Your task to perform on an android device: clear all cookies in the chrome app Image 0: 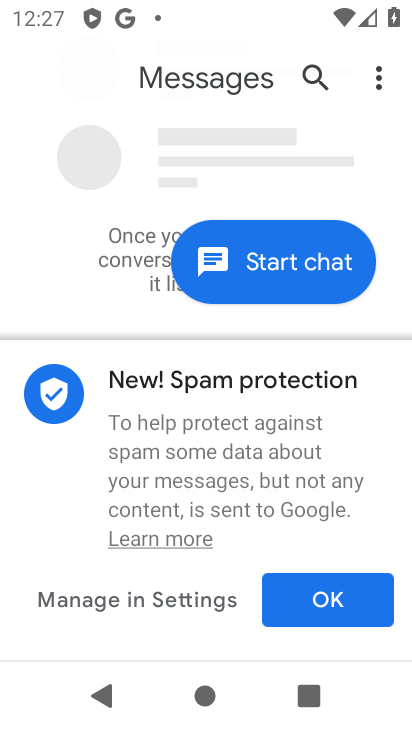
Step 0: press back button
Your task to perform on an android device: clear all cookies in the chrome app Image 1: 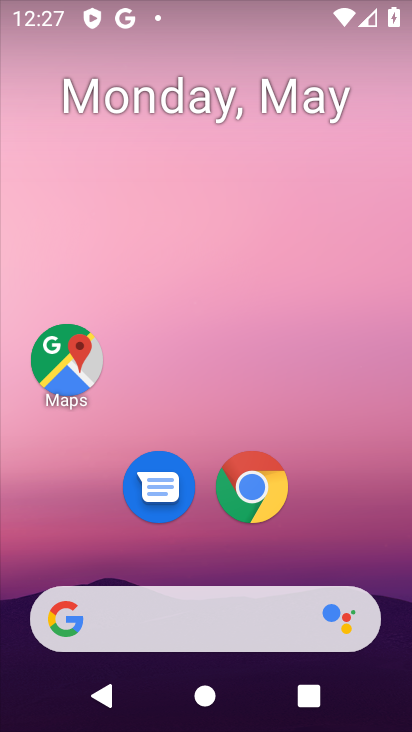
Step 1: click (253, 488)
Your task to perform on an android device: clear all cookies in the chrome app Image 2: 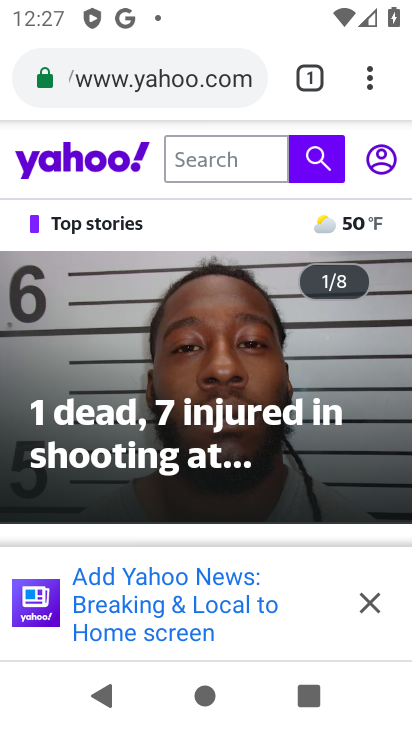
Step 2: click (372, 76)
Your task to perform on an android device: clear all cookies in the chrome app Image 3: 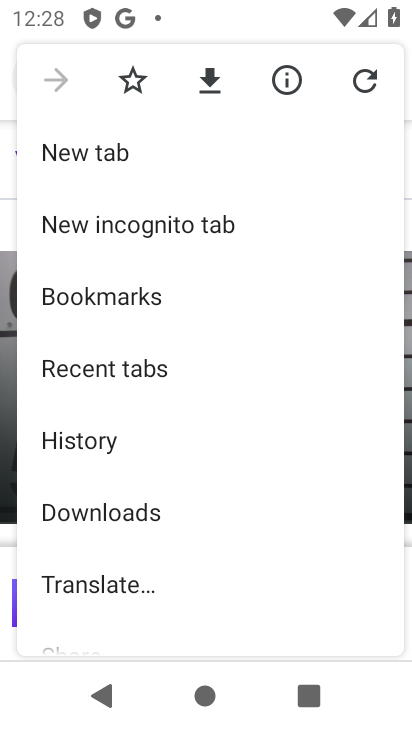
Step 3: drag from (160, 548) to (150, 379)
Your task to perform on an android device: clear all cookies in the chrome app Image 4: 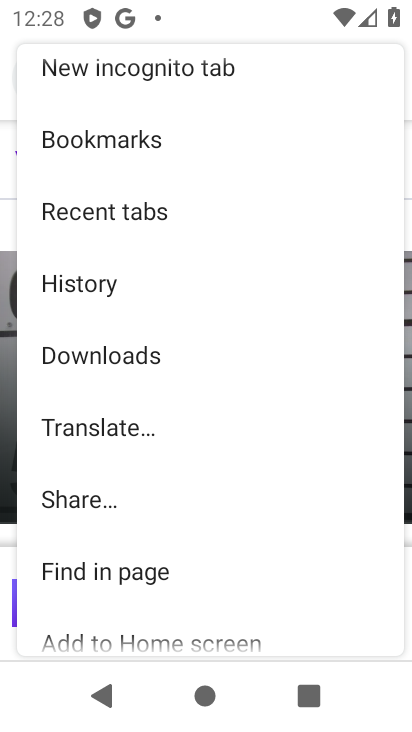
Step 4: drag from (167, 534) to (136, 386)
Your task to perform on an android device: clear all cookies in the chrome app Image 5: 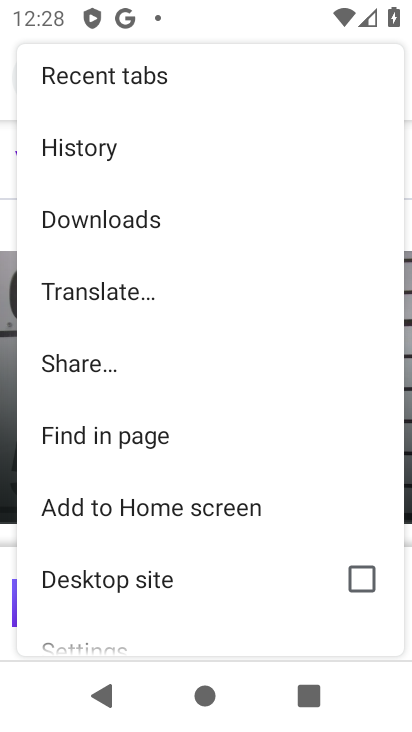
Step 5: drag from (151, 478) to (148, 287)
Your task to perform on an android device: clear all cookies in the chrome app Image 6: 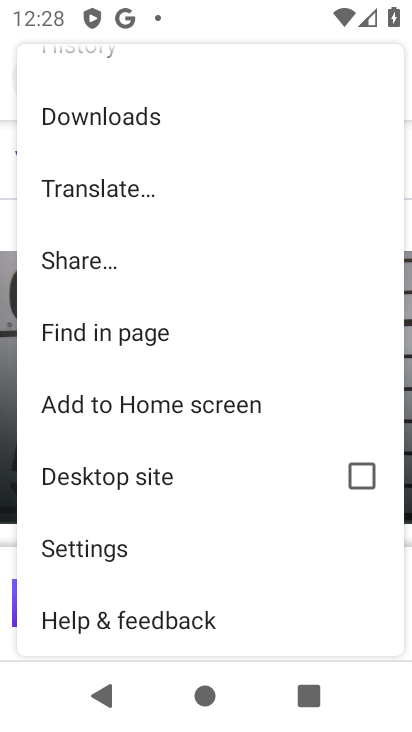
Step 6: click (95, 543)
Your task to perform on an android device: clear all cookies in the chrome app Image 7: 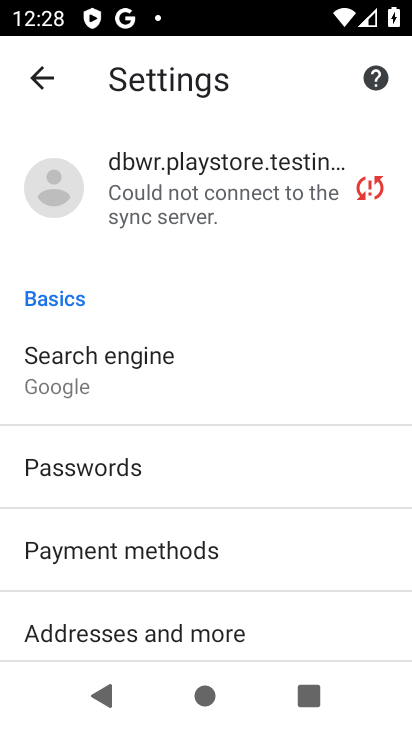
Step 7: drag from (186, 486) to (195, 356)
Your task to perform on an android device: clear all cookies in the chrome app Image 8: 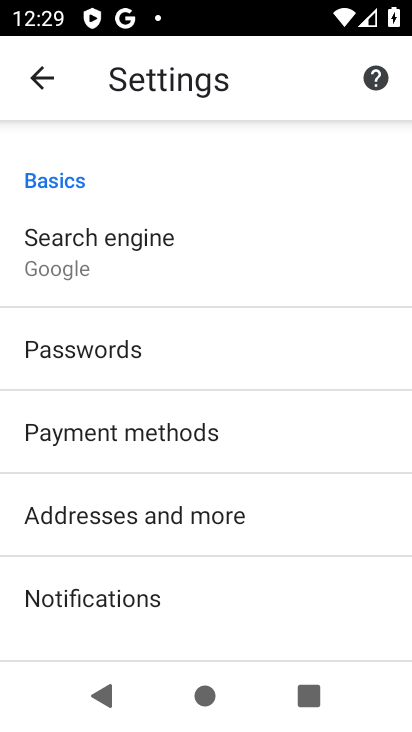
Step 8: drag from (166, 543) to (183, 427)
Your task to perform on an android device: clear all cookies in the chrome app Image 9: 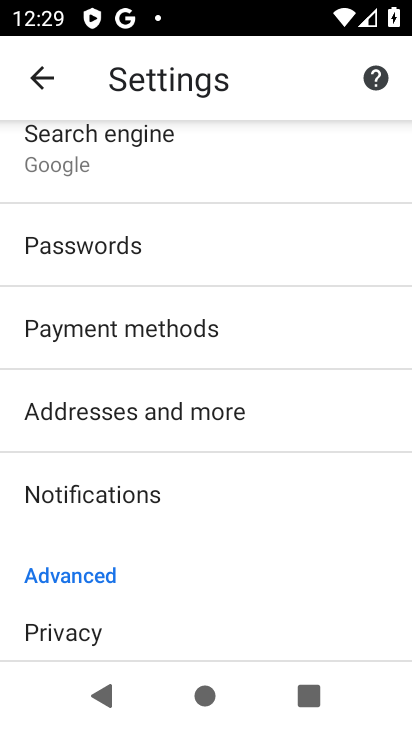
Step 9: drag from (132, 556) to (203, 448)
Your task to perform on an android device: clear all cookies in the chrome app Image 10: 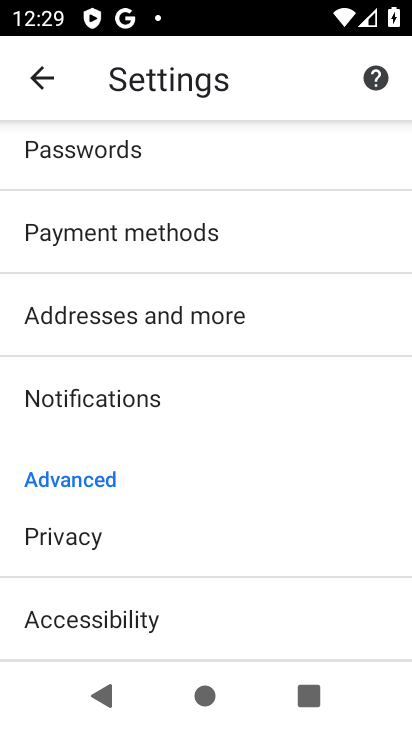
Step 10: click (97, 546)
Your task to perform on an android device: clear all cookies in the chrome app Image 11: 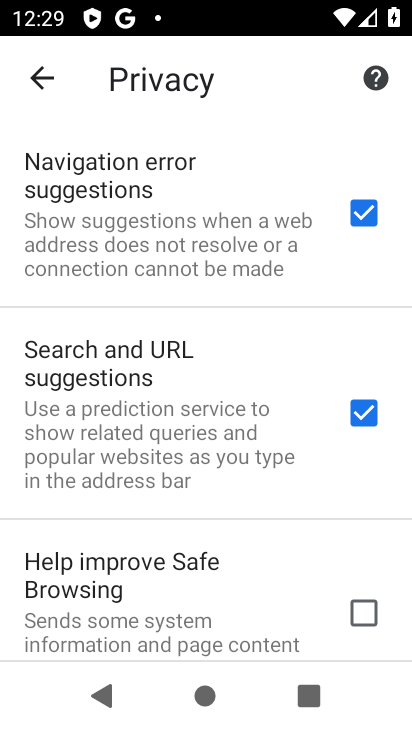
Step 11: drag from (198, 529) to (265, 385)
Your task to perform on an android device: clear all cookies in the chrome app Image 12: 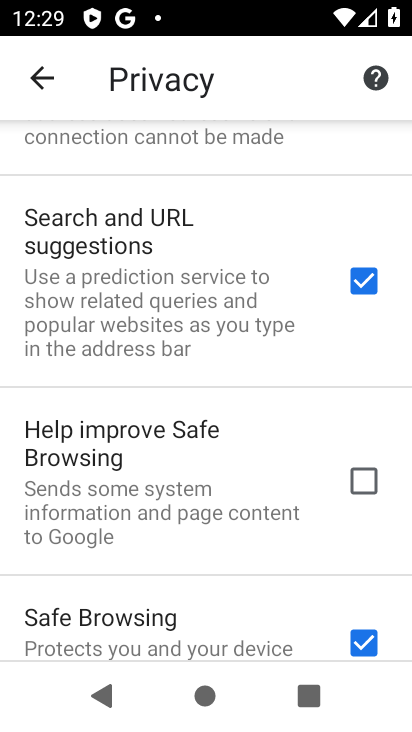
Step 12: drag from (186, 550) to (292, 397)
Your task to perform on an android device: clear all cookies in the chrome app Image 13: 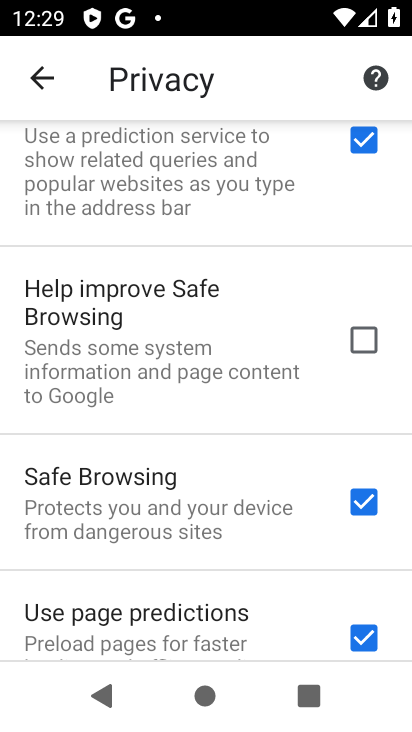
Step 13: drag from (188, 559) to (282, 455)
Your task to perform on an android device: clear all cookies in the chrome app Image 14: 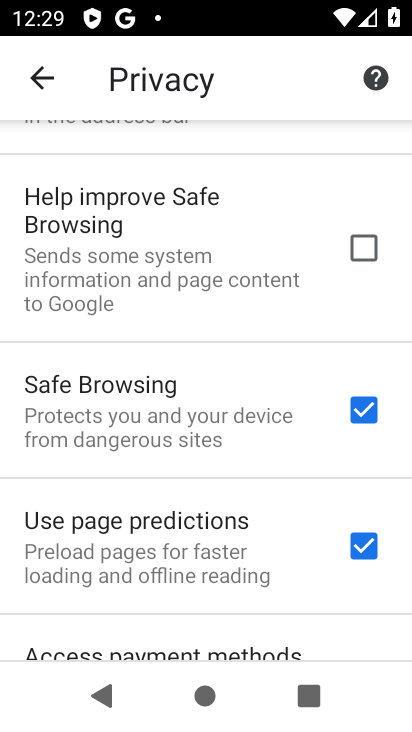
Step 14: drag from (167, 597) to (251, 479)
Your task to perform on an android device: clear all cookies in the chrome app Image 15: 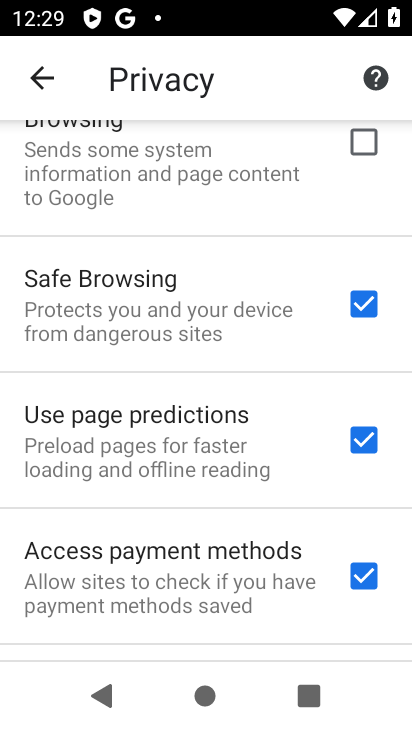
Step 15: drag from (153, 592) to (234, 451)
Your task to perform on an android device: clear all cookies in the chrome app Image 16: 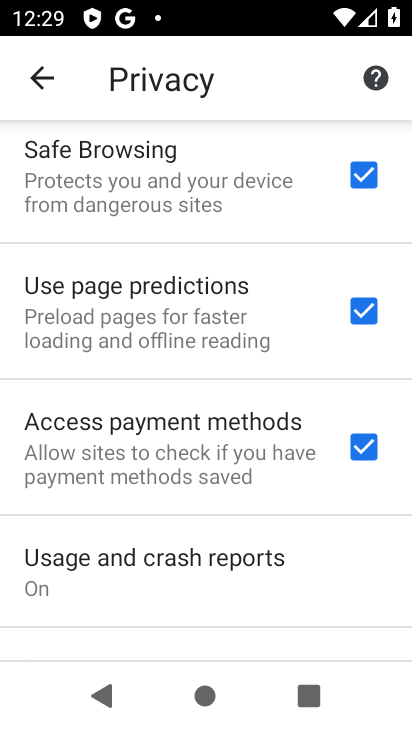
Step 16: drag from (150, 593) to (201, 444)
Your task to perform on an android device: clear all cookies in the chrome app Image 17: 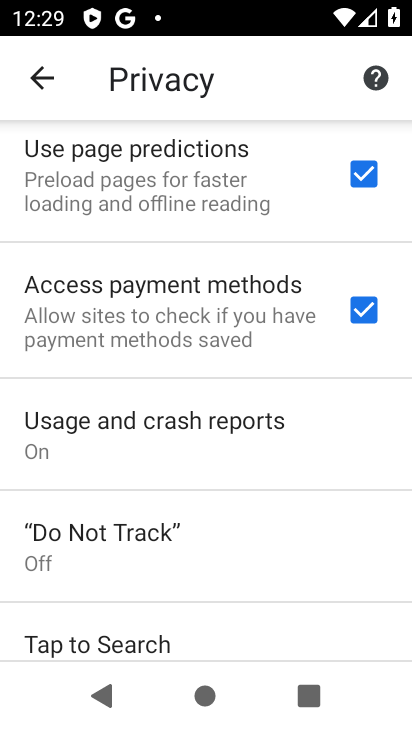
Step 17: drag from (106, 566) to (190, 422)
Your task to perform on an android device: clear all cookies in the chrome app Image 18: 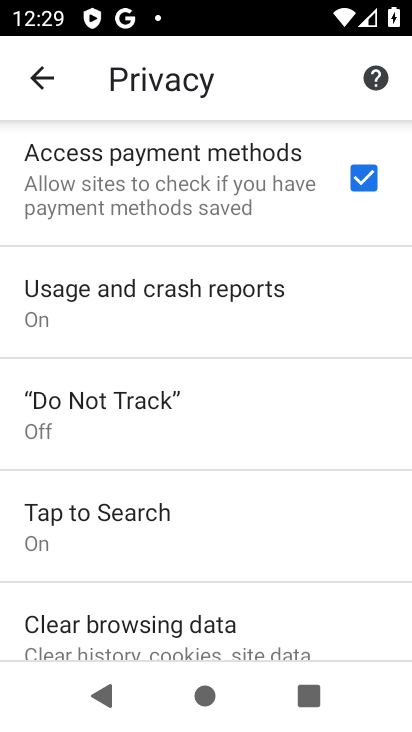
Step 18: drag from (90, 556) to (138, 439)
Your task to perform on an android device: clear all cookies in the chrome app Image 19: 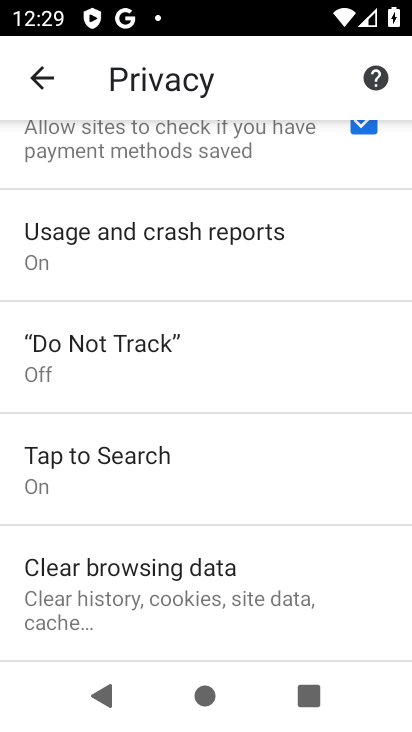
Step 19: click (98, 562)
Your task to perform on an android device: clear all cookies in the chrome app Image 20: 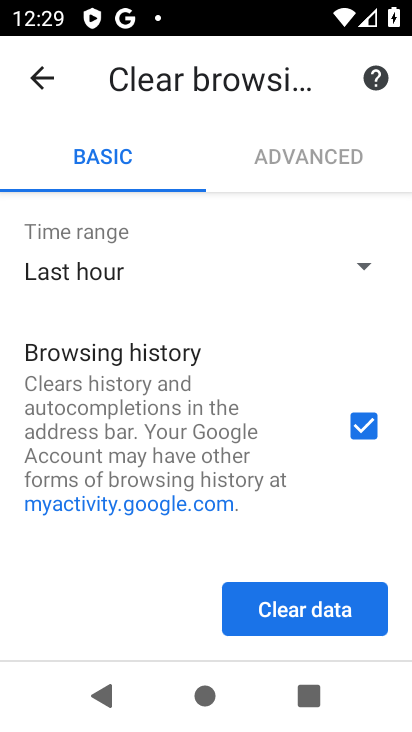
Step 20: click (366, 265)
Your task to perform on an android device: clear all cookies in the chrome app Image 21: 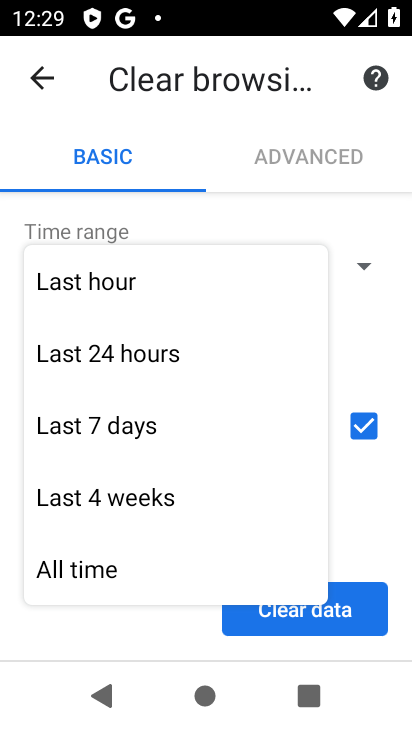
Step 21: click (89, 581)
Your task to perform on an android device: clear all cookies in the chrome app Image 22: 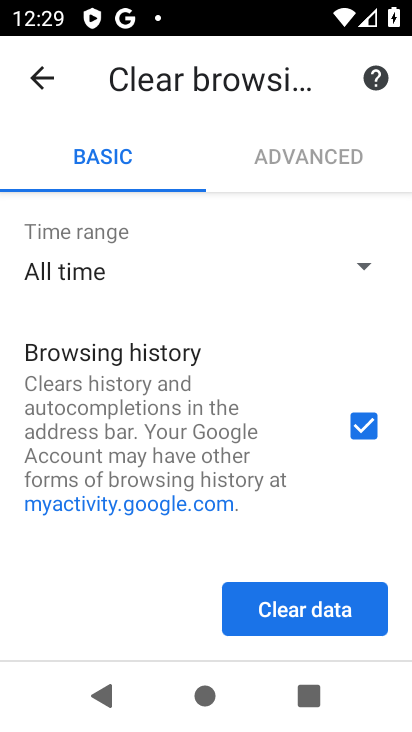
Step 22: click (312, 597)
Your task to perform on an android device: clear all cookies in the chrome app Image 23: 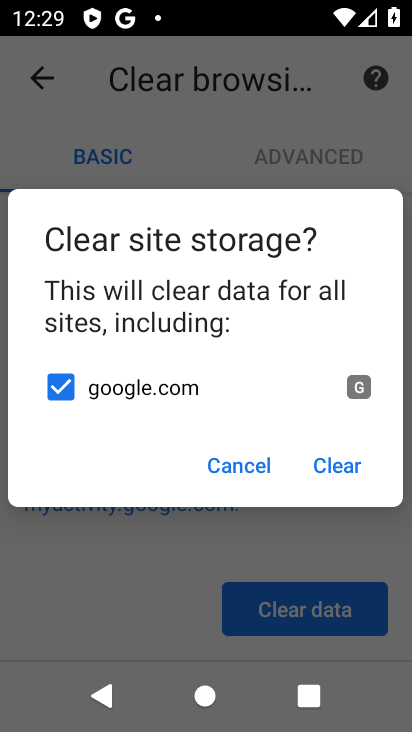
Step 23: click (328, 462)
Your task to perform on an android device: clear all cookies in the chrome app Image 24: 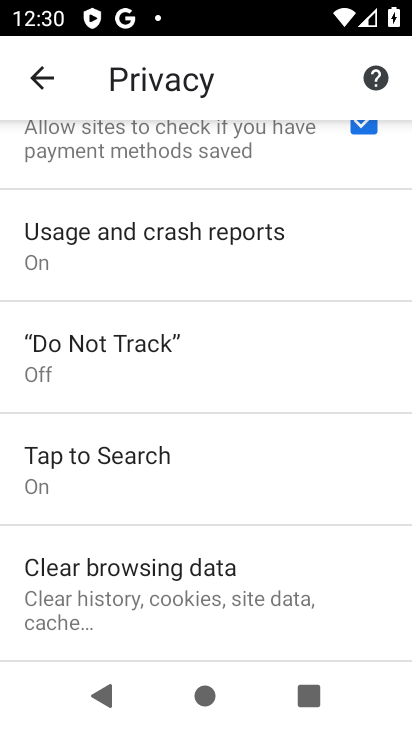
Step 24: task complete